Your task to perform on an android device: search for starred emails in the gmail app Image 0: 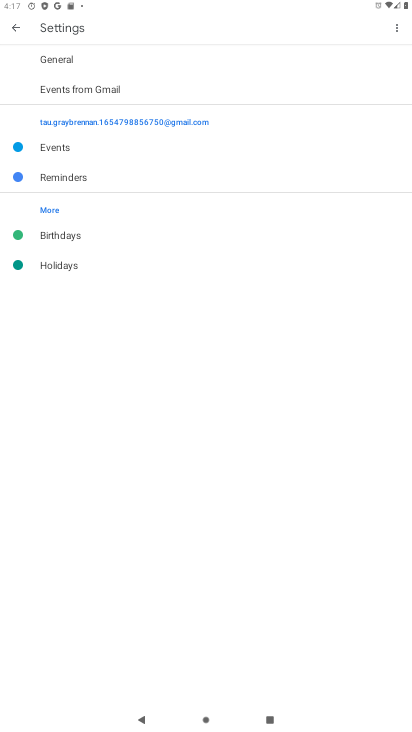
Step 0: press home button
Your task to perform on an android device: search for starred emails in the gmail app Image 1: 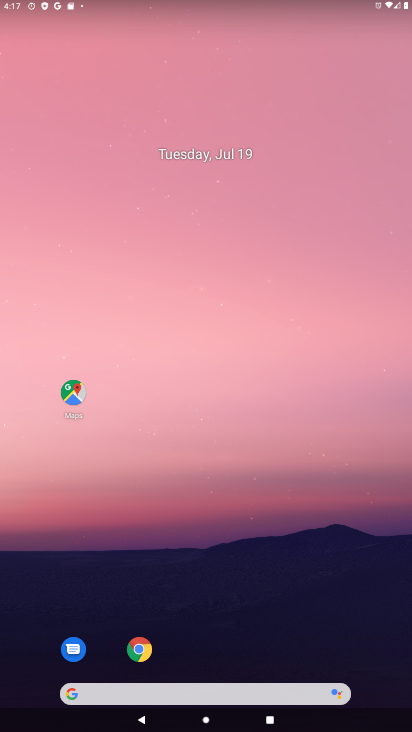
Step 1: drag from (261, 644) to (29, 325)
Your task to perform on an android device: search for starred emails in the gmail app Image 2: 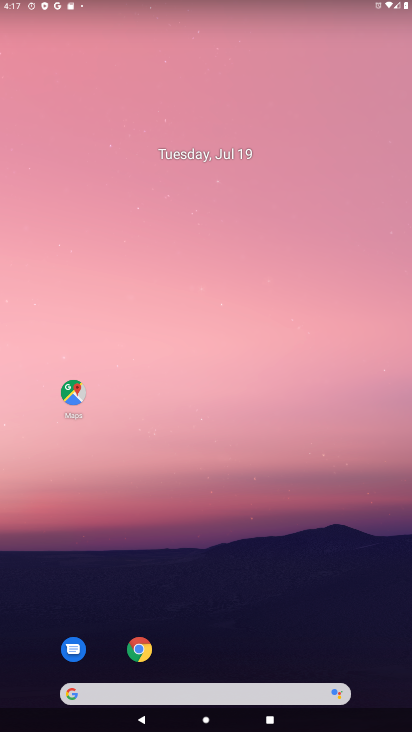
Step 2: drag from (246, 618) to (280, 78)
Your task to perform on an android device: search for starred emails in the gmail app Image 3: 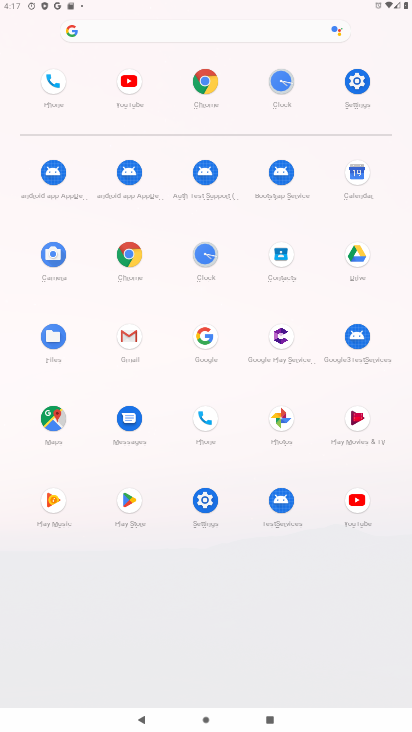
Step 3: click (126, 331)
Your task to perform on an android device: search for starred emails in the gmail app Image 4: 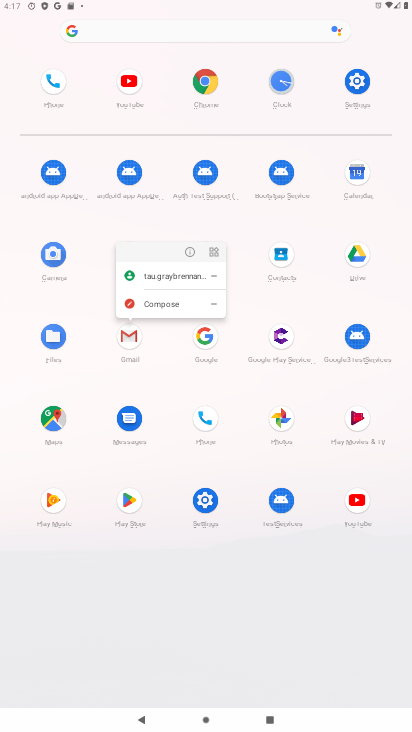
Step 4: click (128, 341)
Your task to perform on an android device: search for starred emails in the gmail app Image 5: 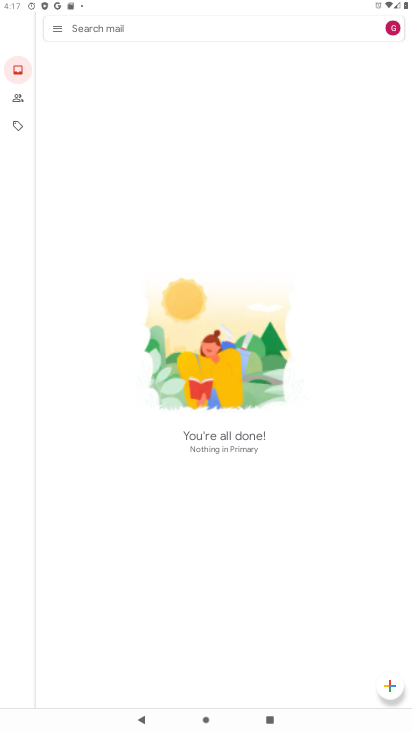
Step 5: click (52, 30)
Your task to perform on an android device: search for starred emails in the gmail app Image 6: 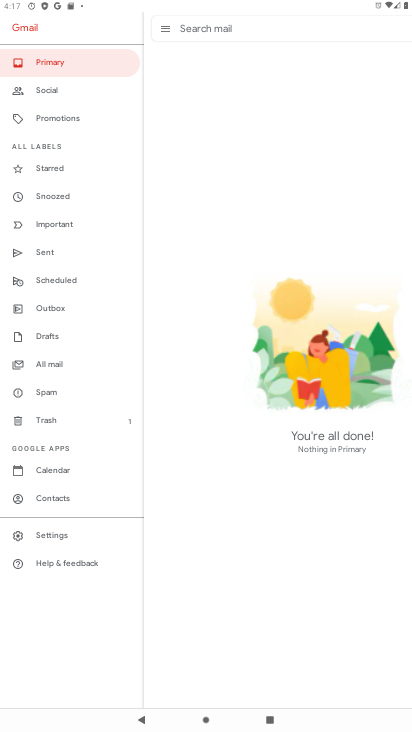
Step 6: click (47, 165)
Your task to perform on an android device: search for starred emails in the gmail app Image 7: 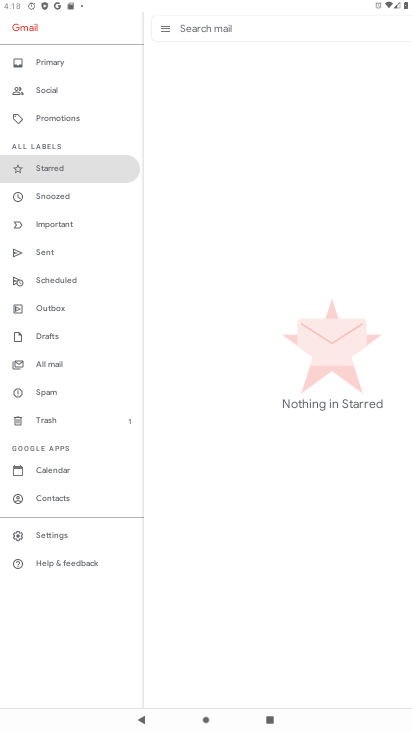
Step 7: task complete